Your task to perform on an android device: toggle translation in the chrome app Image 0: 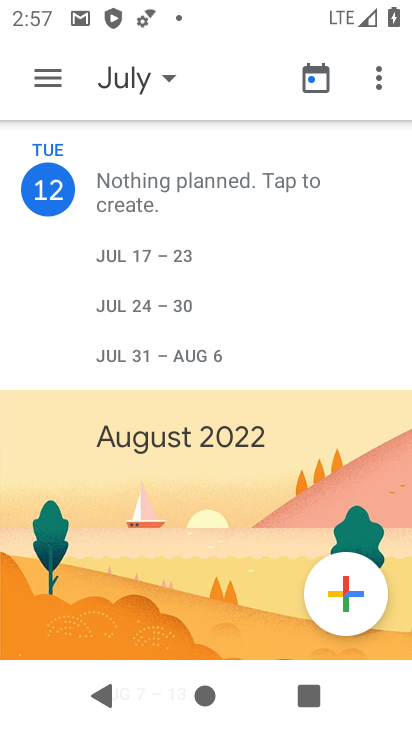
Step 0: press home button
Your task to perform on an android device: toggle translation in the chrome app Image 1: 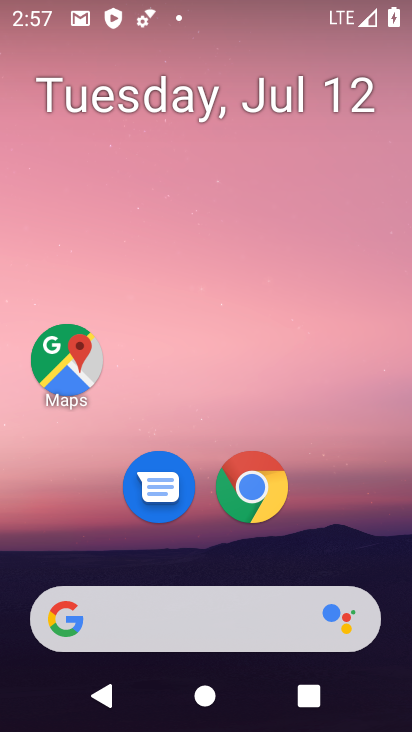
Step 1: drag from (233, 600) to (260, 133)
Your task to perform on an android device: toggle translation in the chrome app Image 2: 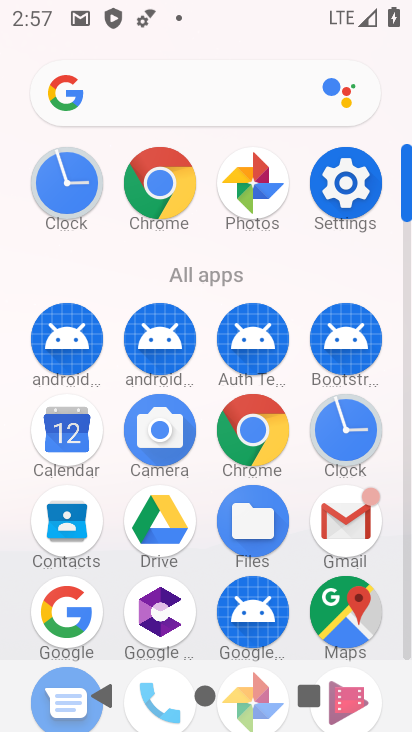
Step 2: click (160, 224)
Your task to perform on an android device: toggle translation in the chrome app Image 3: 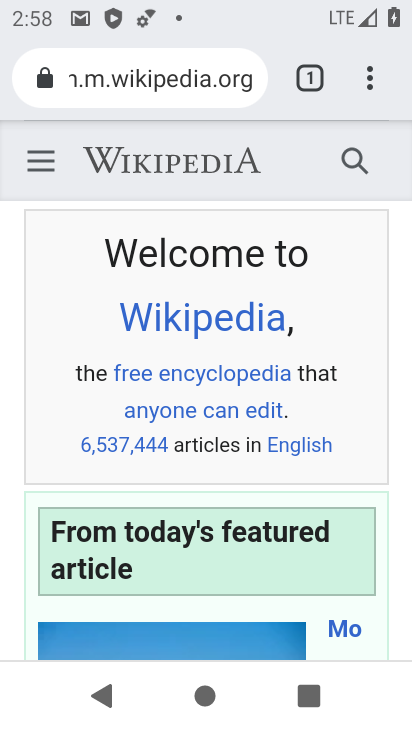
Step 3: click (361, 76)
Your task to perform on an android device: toggle translation in the chrome app Image 4: 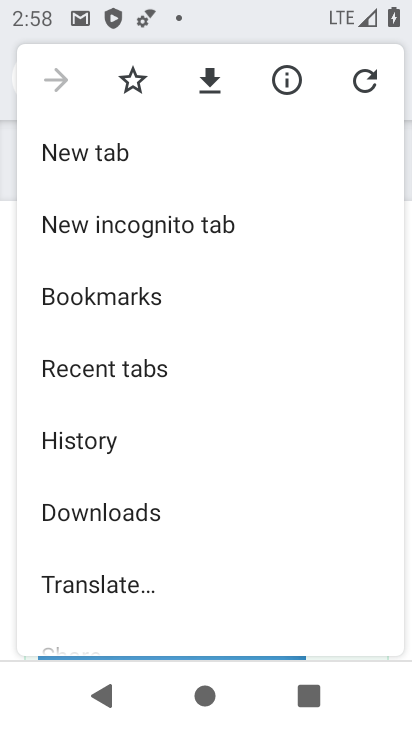
Step 4: click (99, 594)
Your task to perform on an android device: toggle translation in the chrome app Image 5: 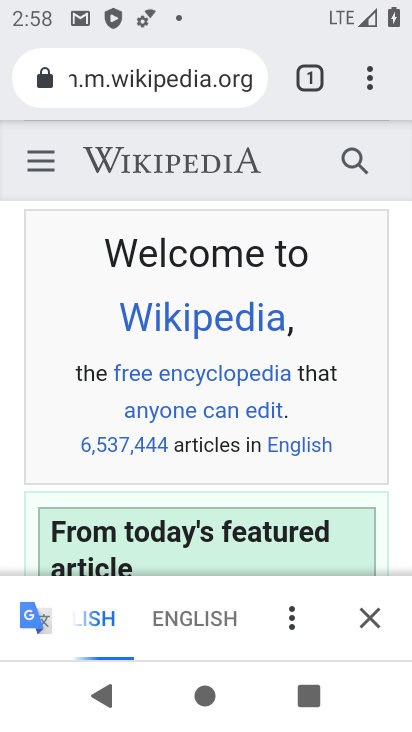
Step 5: click (290, 616)
Your task to perform on an android device: toggle translation in the chrome app Image 6: 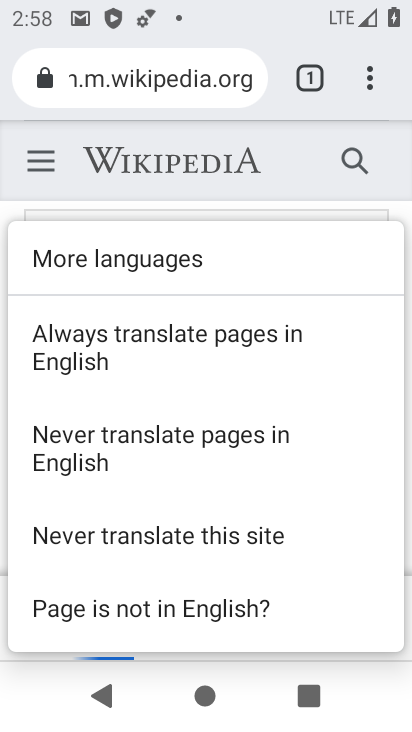
Step 6: click (203, 551)
Your task to perform on an android device: toggle translation in the chrome app Image 7: 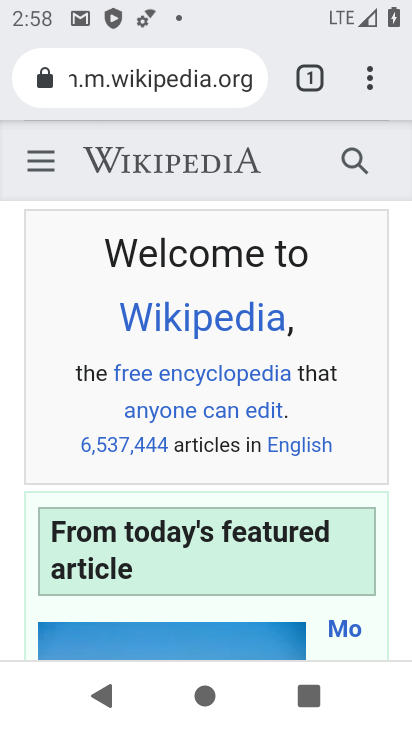
Step 7: task complete